Your task to perform on an android device: Go to Maps Image 0: 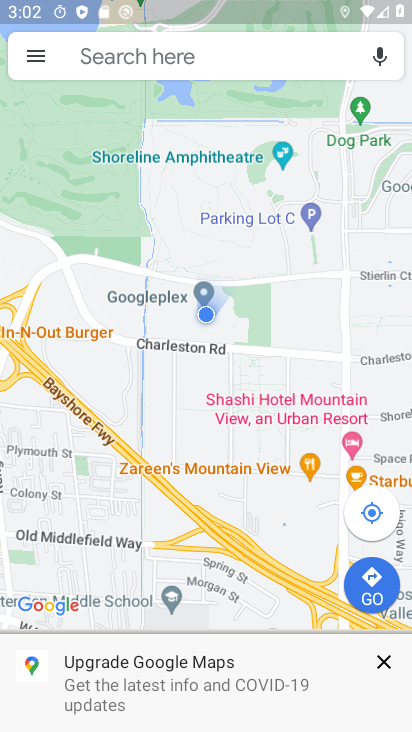
Step 0: task complete